Your task to perform on an android device: turn on data saver in the chrome app Image 0: 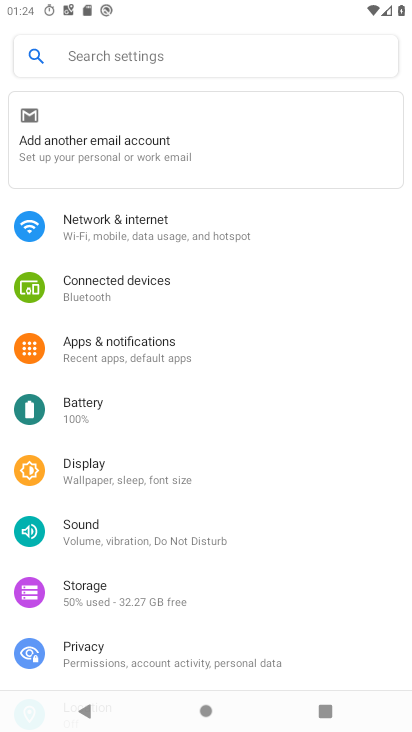
Step 0: press home button
Your task to perform on an android device: turn on data saver in the chrome app Image 1: 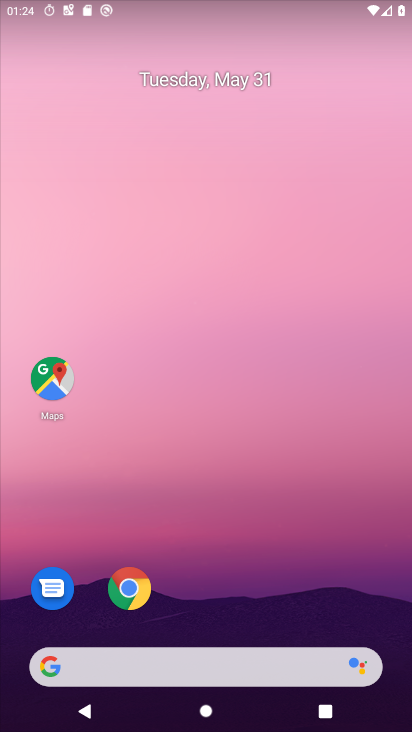
Step 1: drag from (340, 665) to (298, 43)
Your task to perform on an android device: turn on data saver in the chrome app Image 2: 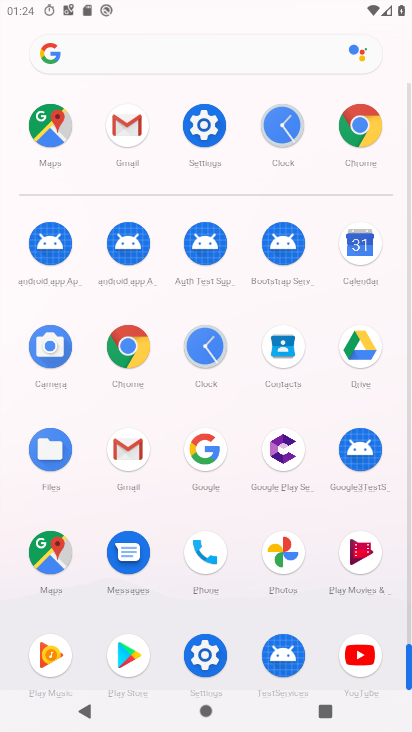
Step 2: click (127, 353)
Your task to perform on an android device: turn on data saver in the chrome app Image 3: 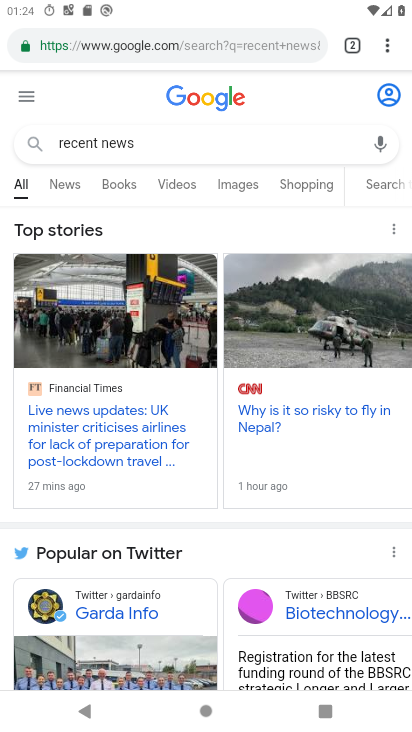
Step 3: drag from (401, 47) to (227, 512)
Your task to perform on an android device: turn on data saver in the chrome app Image 4: 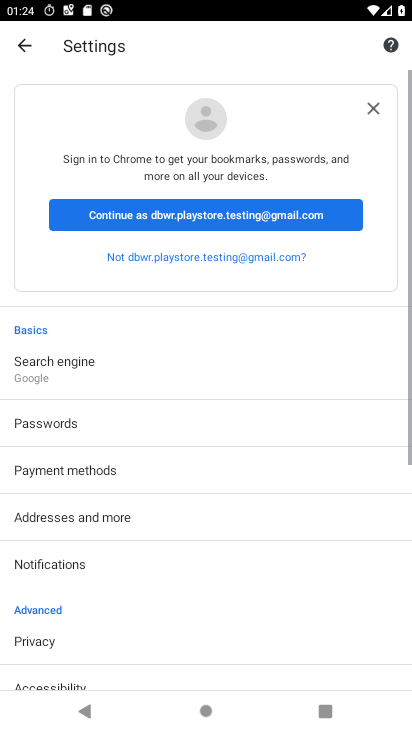
Step 4: drag from (188, 567) to (228, 229)
Your task to perform on an android device: turn on data saver in the chrome app Image 5: 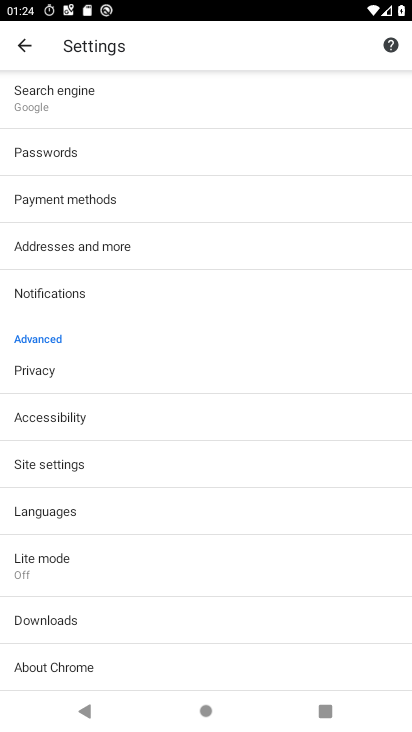
Step 5: click (101, 563)
Your task to perform on an android device: turn on data saver in the chrome app Image 6: 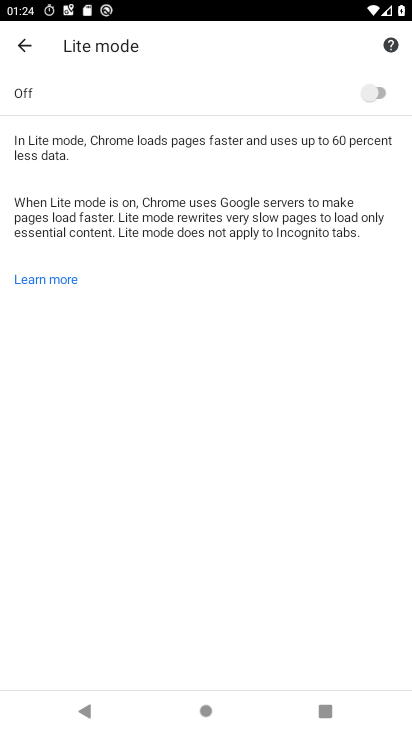
Step 6: click (385, 94)
Your task to perform on an android device: turn on data saver in the chrome app Image 7: 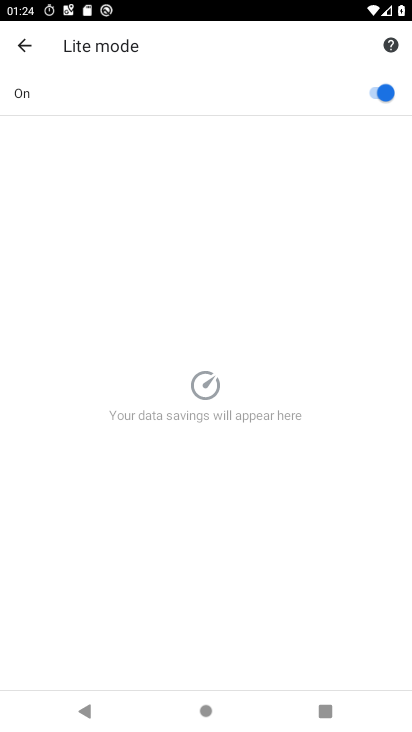
Step 7: task complete